Your task to perform on an android device: Go to ESPN.com Image 0: 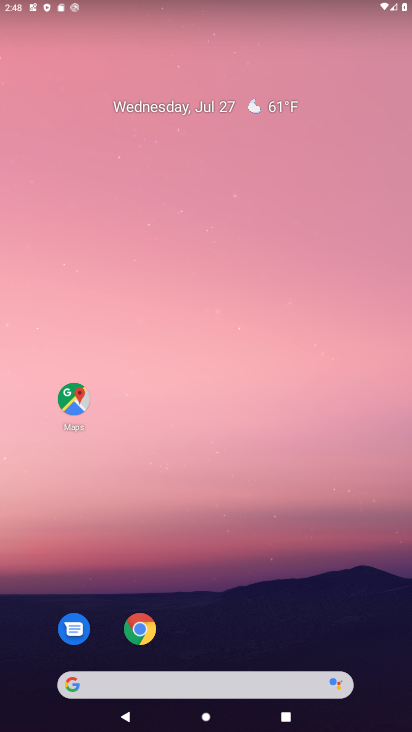
Step 0: click (141, 629)
Your task to perform on an android device: Go to ESPN.com Image 1: 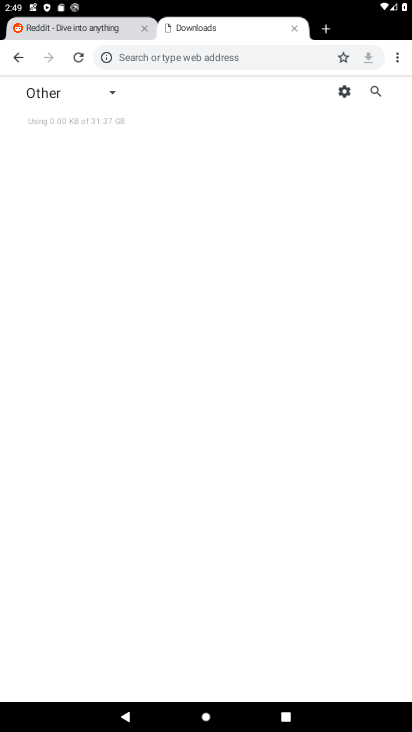
Step 1: click (207, 51)
Your task to perform on an android device: Go to ESPN.com Image 2: 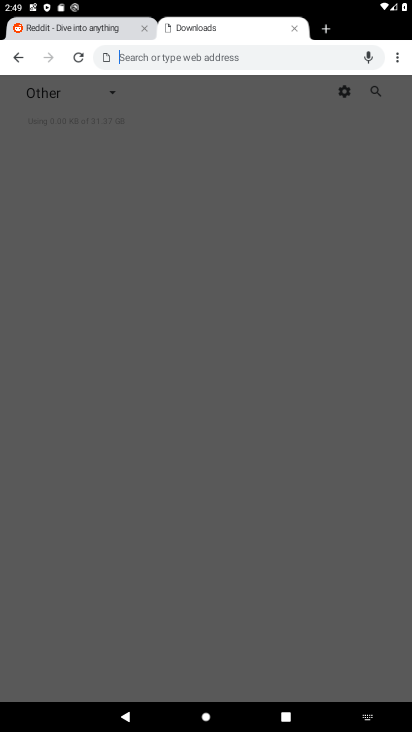
Step 2: type "ESPN.com"
Your task to perform on an android device: Go to ESPN.com Image 3: 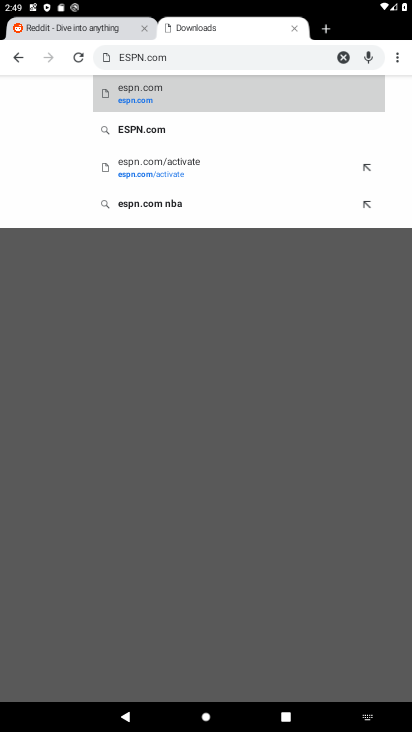
Step 3: click (156, 126)
Your task to perform on an android device: Go to ESPN.com Image 4: 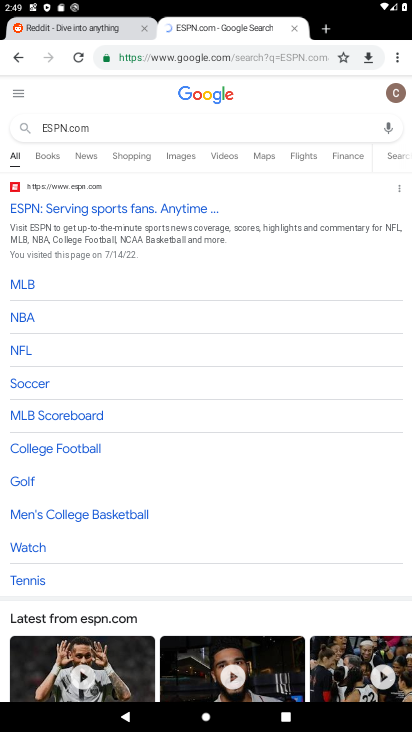
Step 4: click (125, 207)
Your task to perform on an android device: Go to ESPN.com Image 5: 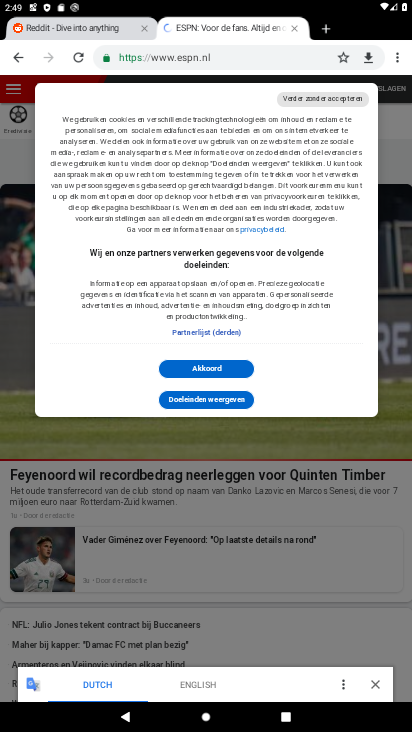
Step 5: click (201, 364)
Your task to perform on an android device: Go to ESPN.com Image 6: 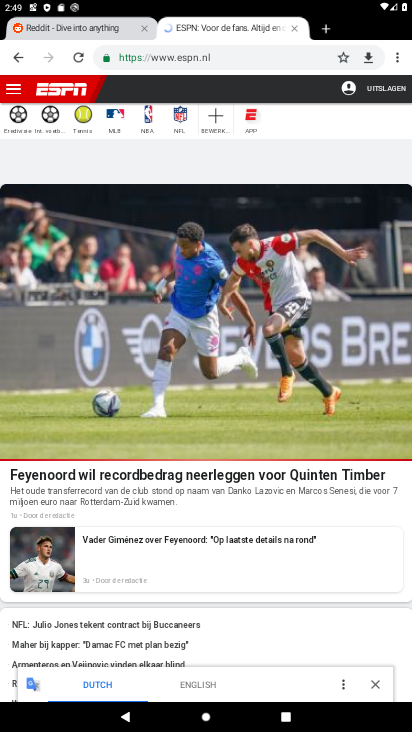
Step 6: task complete